Your task to perform on an android device: find which apps use the phone's location Image 0: 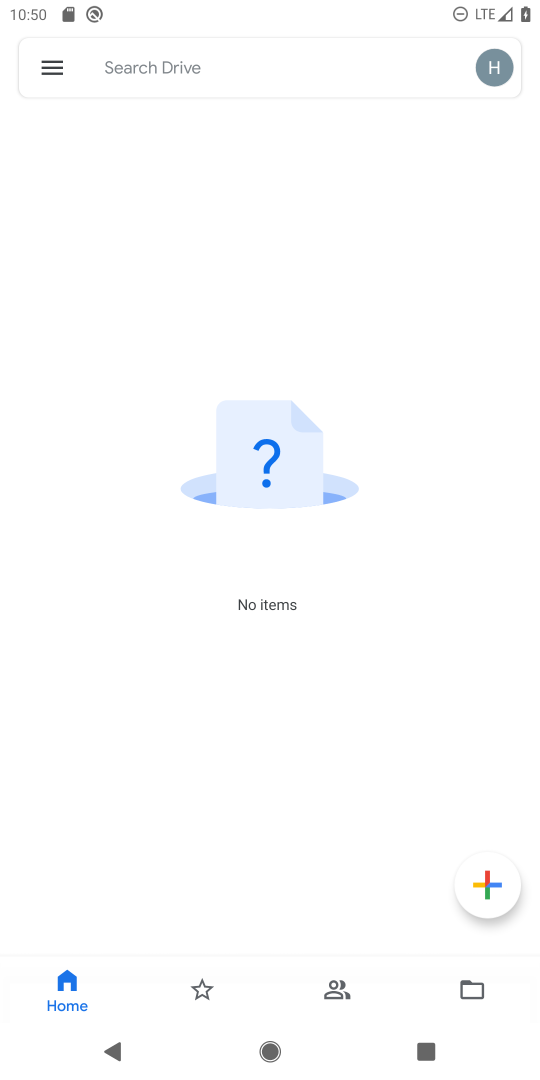
Step 0: press home button
Your task to perform on an android device: find which apps use the phone's location Image 1: 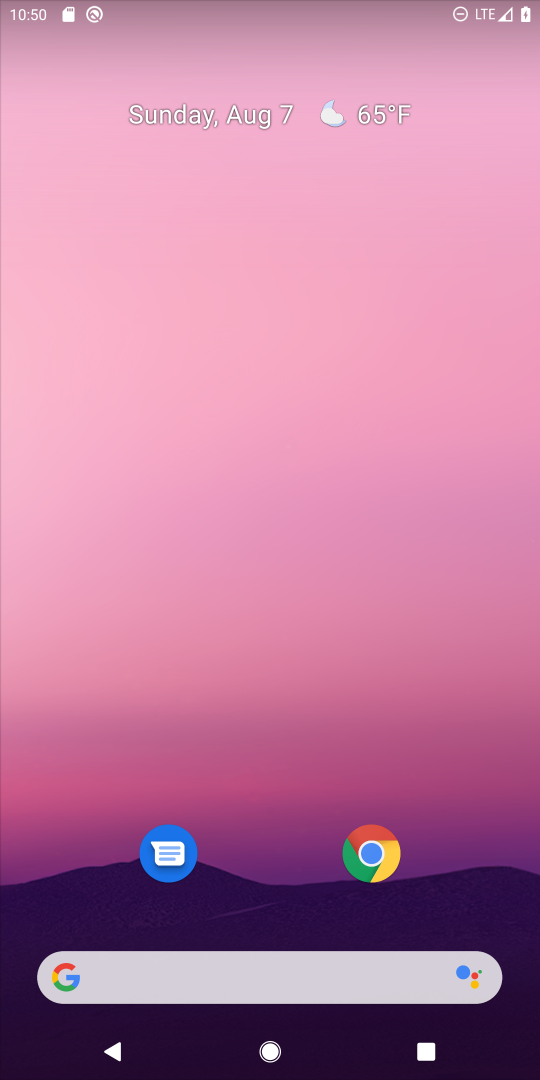
Step 1: drag from (207, 930) to (418, 121)
Your task to perform on an android device: find which apps use the phone's location Image 2: 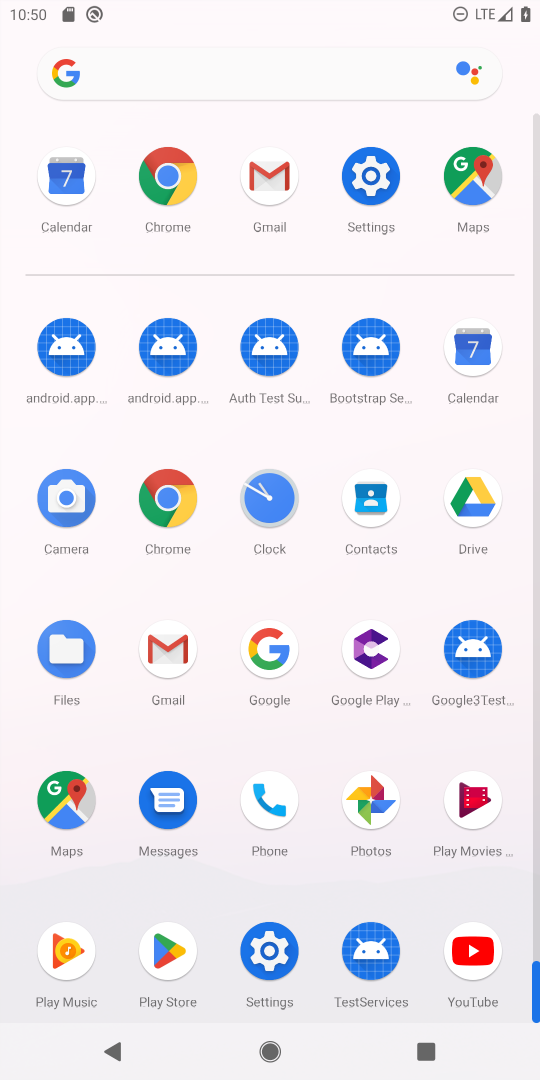
Step 2: click (372, 161)
Your task to perform on an android device: find which apps use the phone's location Image 3: 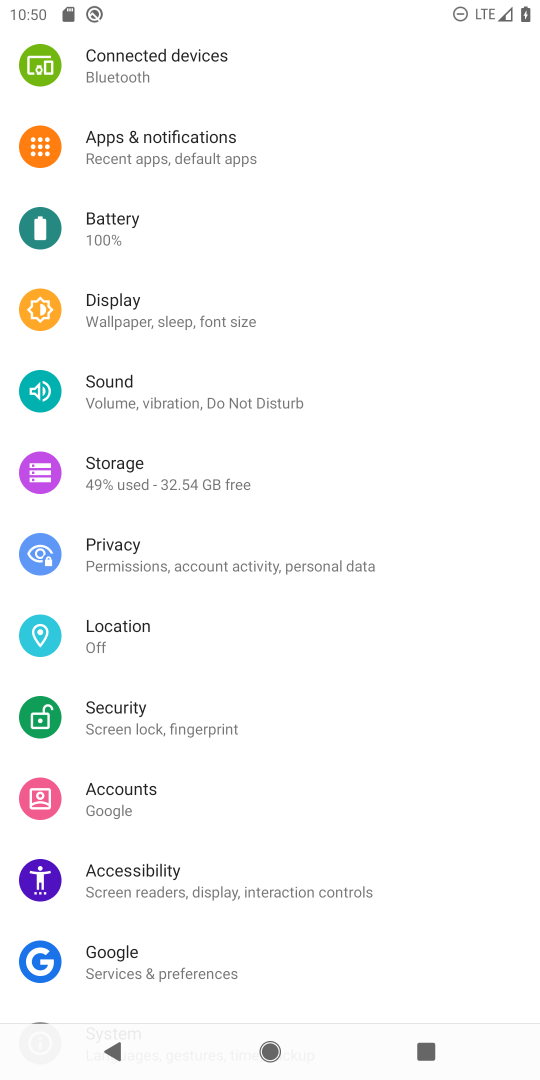
Step 3: click (182, 616)
Your task to perform on an android device: find which apps use the phone's location Image 4: 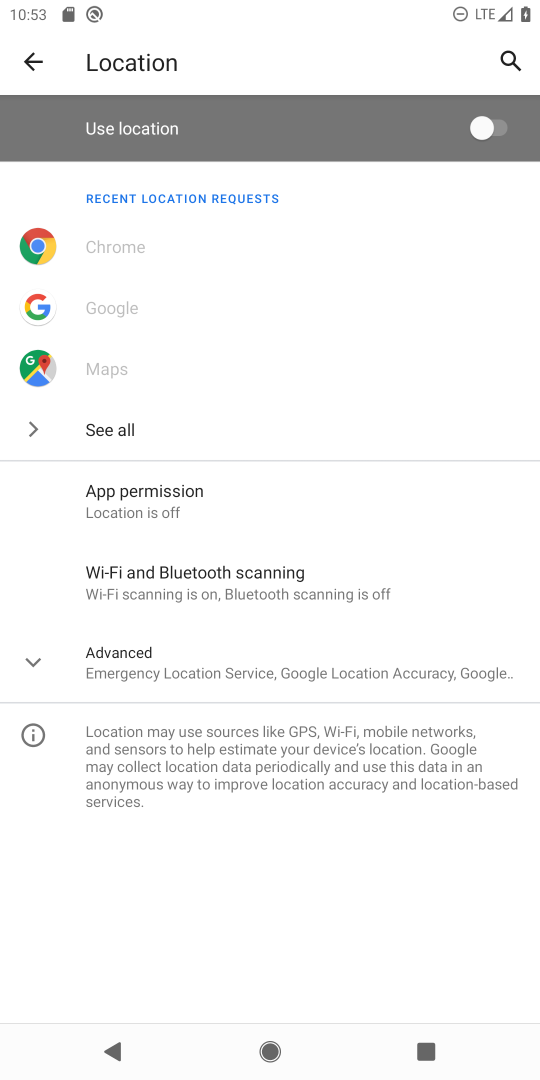
Step 4: task complete